Your task to perform on an android device: delete the emails in spam in the gmail app Image 0: 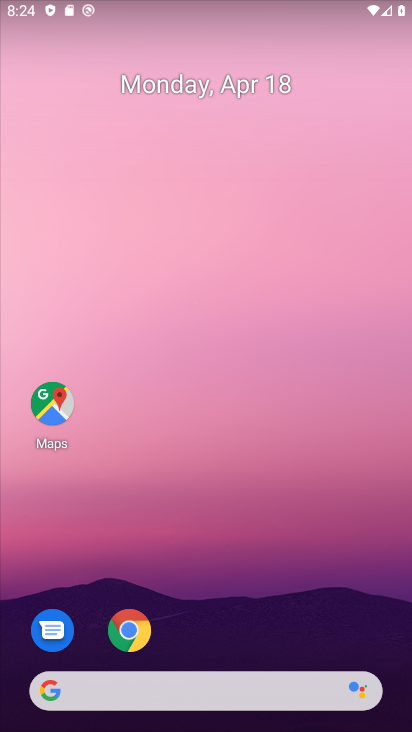
Step 0: drag from (260, 640) to (255, 301)
Your task to perform on an android device: delete the emails in spam in the gmail app Image 1: 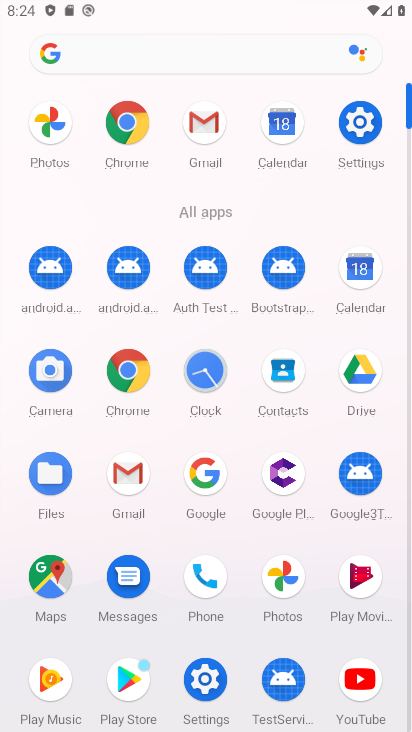
Step 1: click (214, 114)
Your task to perform on an android device: delete the emails in spam in the gmail app Image 2: 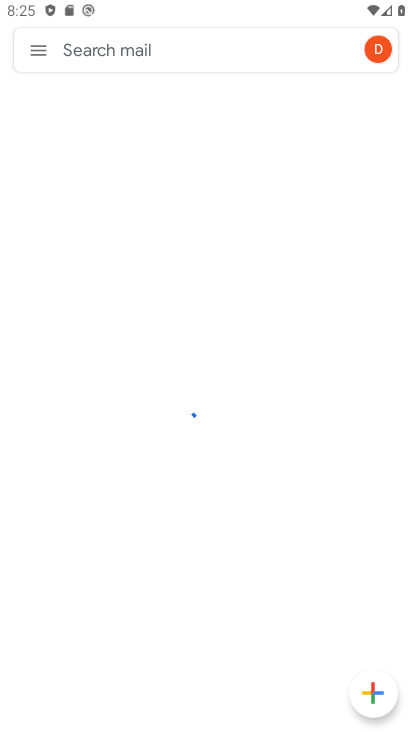
Step 2: click (37, 57)
Your task to perform on an android device: delete the emails in spam in the gmail app Image 3: 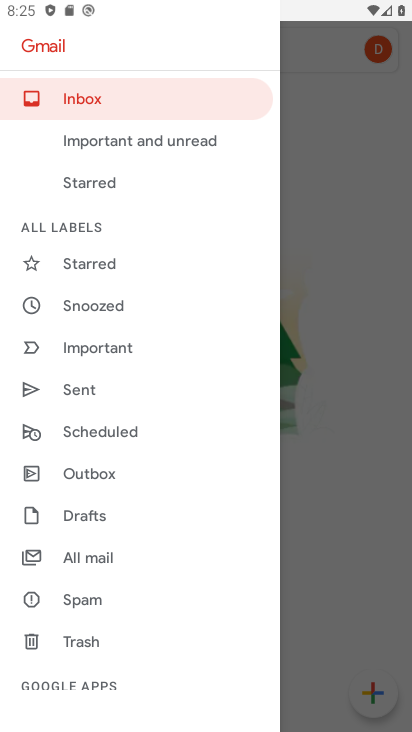
Step 3: click (90, 606)
Your task to perform on an android device: delete the emails in spam in the gmail app Image 4: 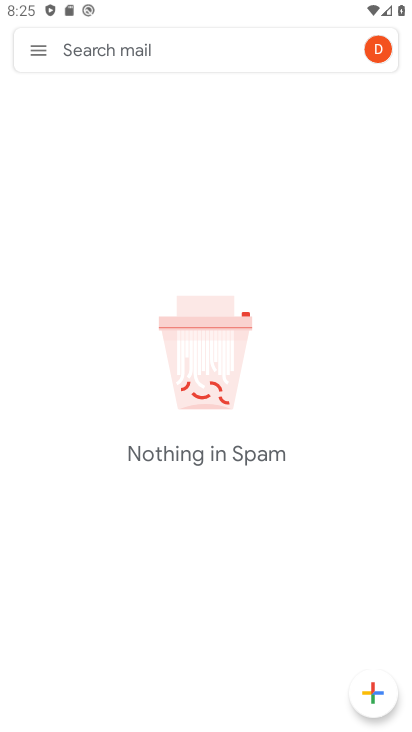
Step 4: task complete